Your task to perform on an android device: Clear all items from cart on amazon.com. Search for dell xps on amazon.com, select the first entry, add it to the cart, then select checkout. Image 0: 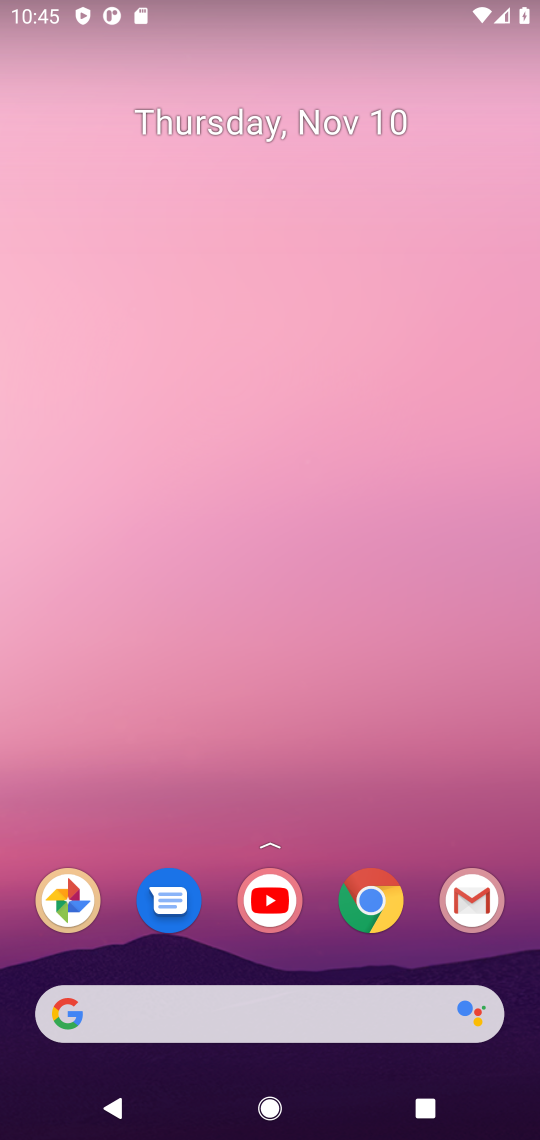
Step 0: click (385, 910)
Your task to perform on an android device: Clear all items from cart on amazon.com. Search for dell xps on amazon.com, select the first entry, add it to the cart, then select checkout. Image 1: 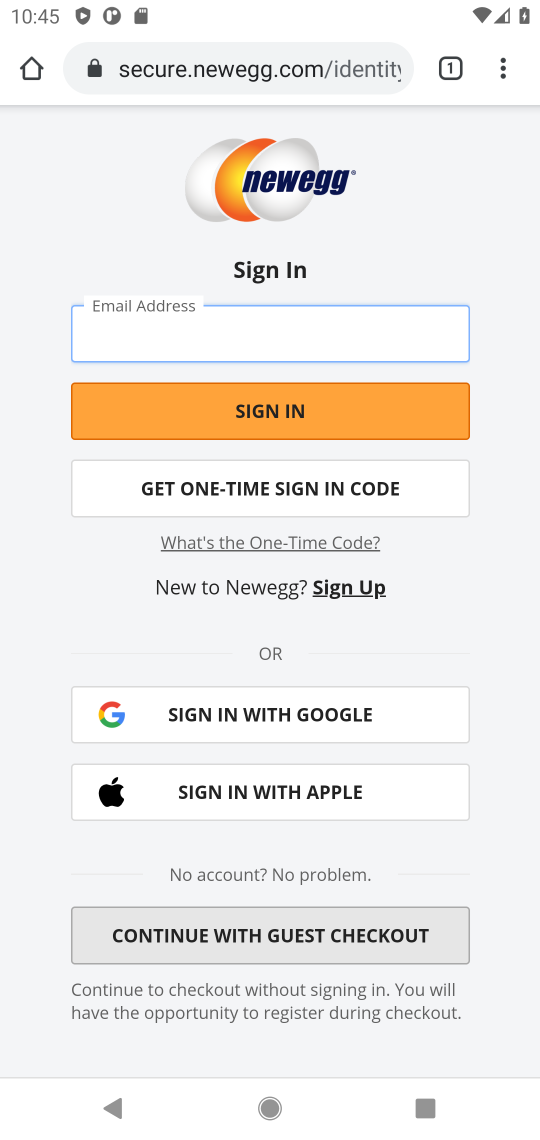
Step 1: click (164, 60)
Your task to perform on an android device: Clear all items from cart on amazon.com. Search for dell xps on amazon.com, select the first entry, add it to the cart, then select checkout. Image 2: 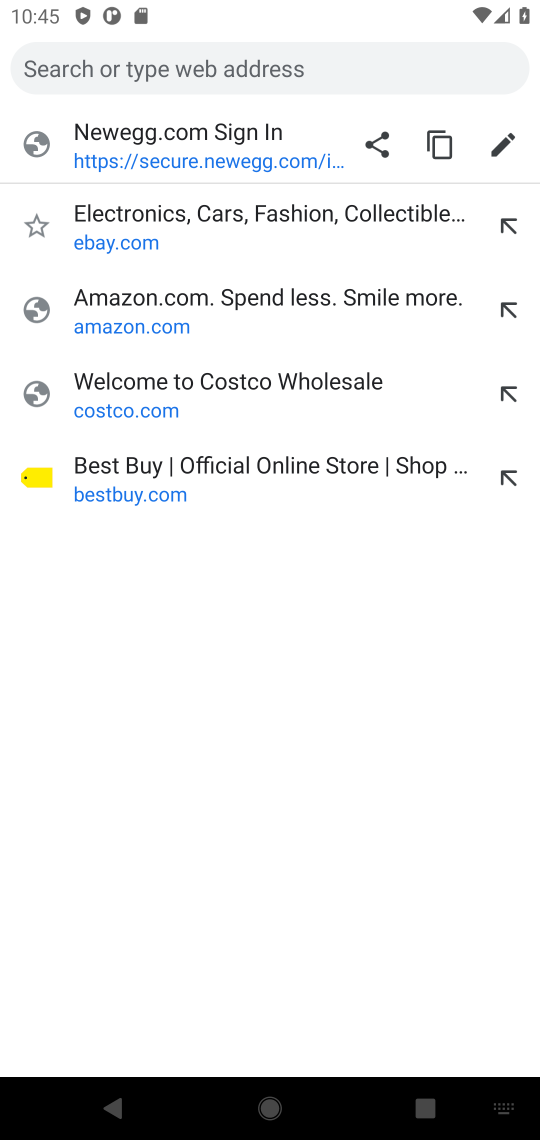
Step 2: click (147, 336)
Your task to perform on an android device: Clear all items from cart on amazon.com. Search for dell xps on amazon.com, select the first entry, add it to the cart, then select checkout. Image 3: 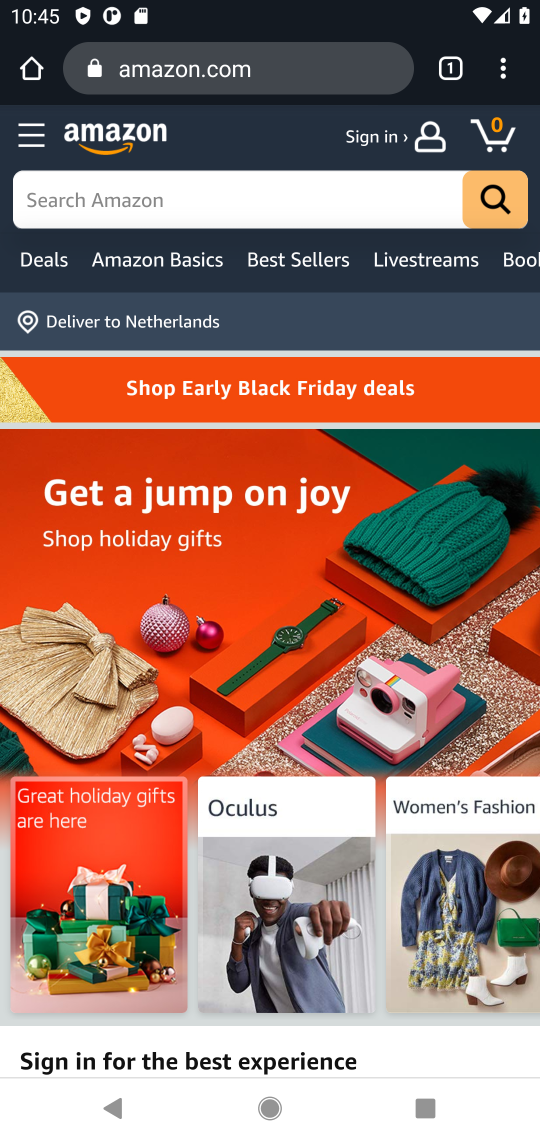
Step 3: click (69, 200)
Your task to perform on an android device: Clear all items from cart on amazon.com. Search for dell xps on amazon.com, select the first entry, add it to the cart, then select checkout. Image 4: 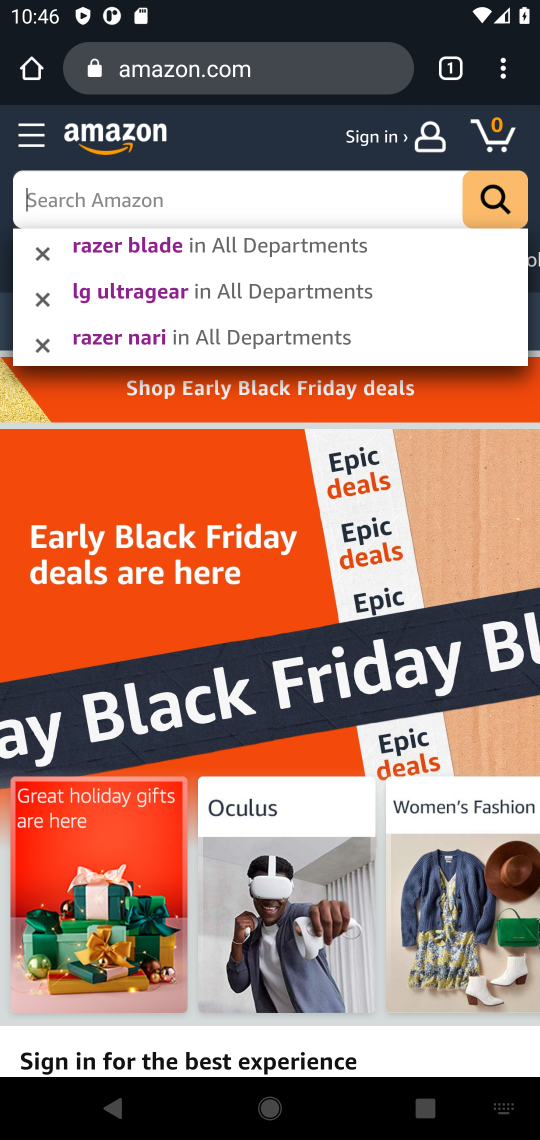
Step 4: type " dell xps"
Your task to perform on an android device: Clear all items from cart on amazon.com. Search for dell xps on amazon.com, select the first entry, add it to the cart, then select checkout. Image 5: 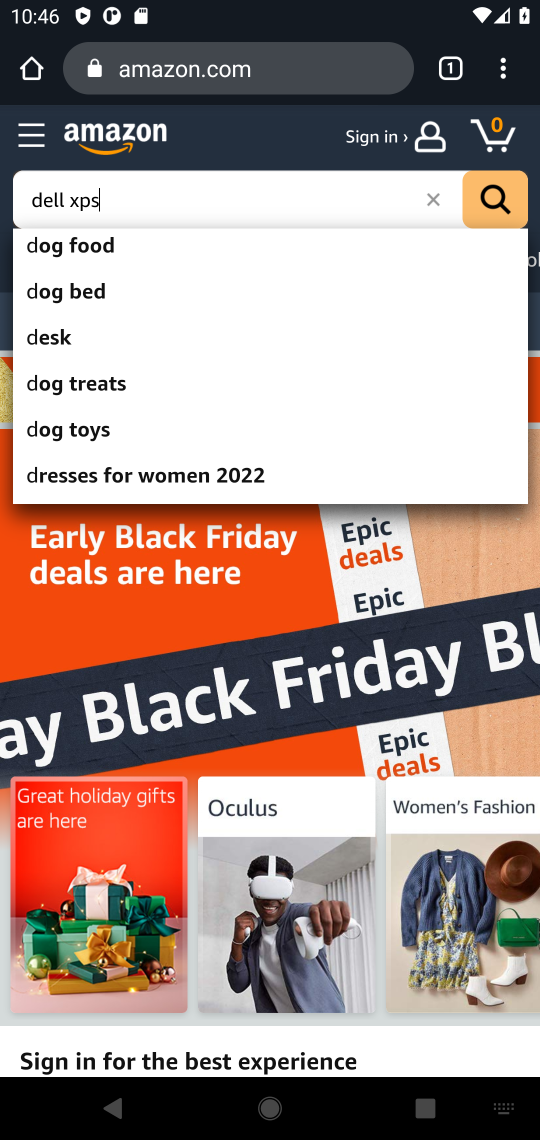
Step 5: press enter
Your task to perform on an android device: Clear all items from cart on amazon.com. Search for dell xps on amazon.com, select the first entry, add it to the cart, then select checkout. Image 6: 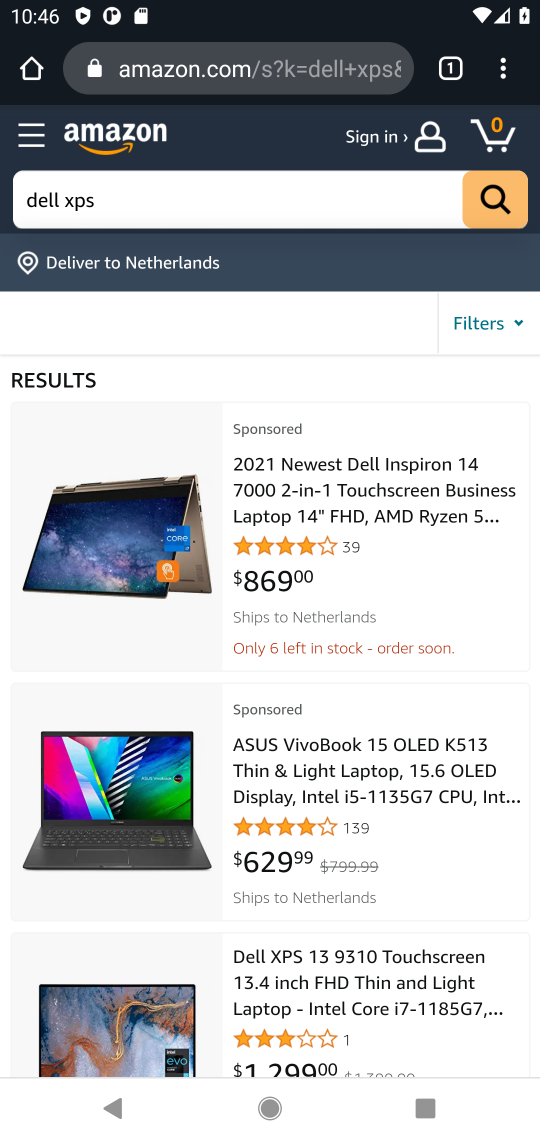
Step 6: click (425, 473)
Your task to perform on an android device: Clear all items from cart on amazon.com. Search for dell xps on amazon.com, select the first entry, add it to the cart, then select checkout. Image 7: 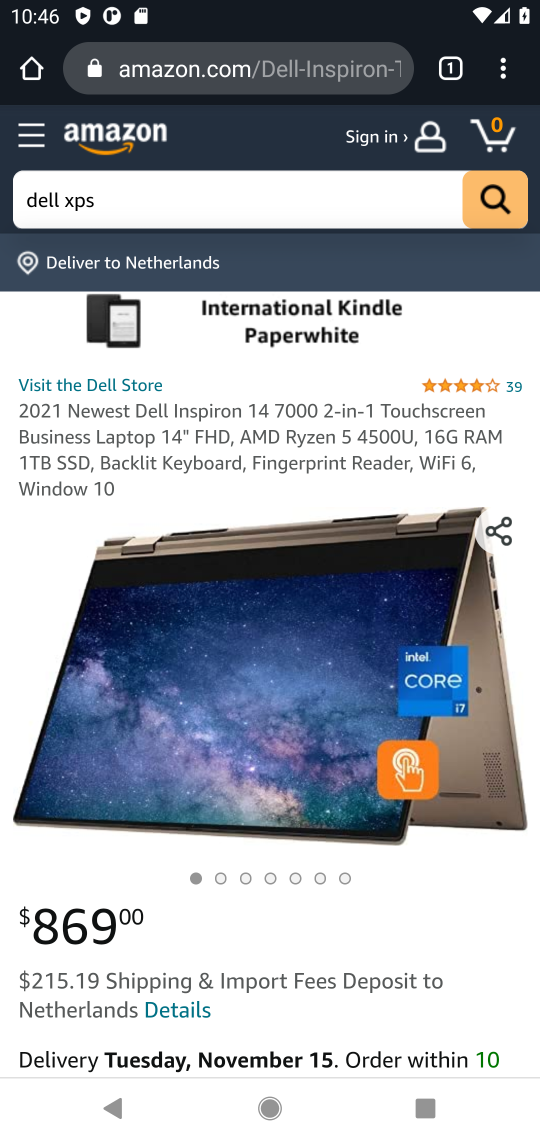
Step 7: task complete